Your task to perform on an android device: Go to Android settings Image 0: 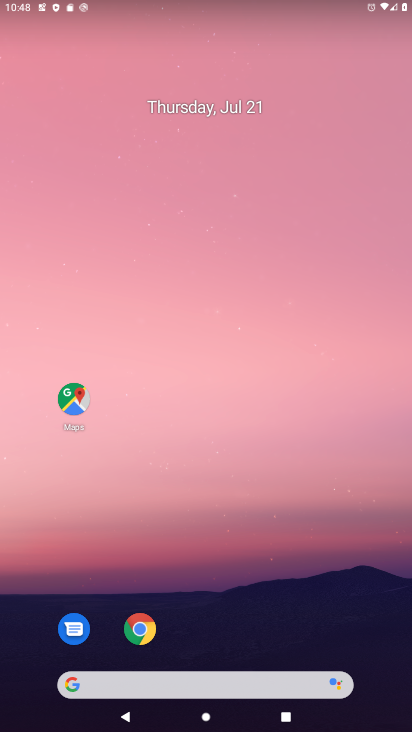
Step 0: drag from (314, 614) to (391, 54)
Your task to perform on an android device: Go to Android settings Image 1: 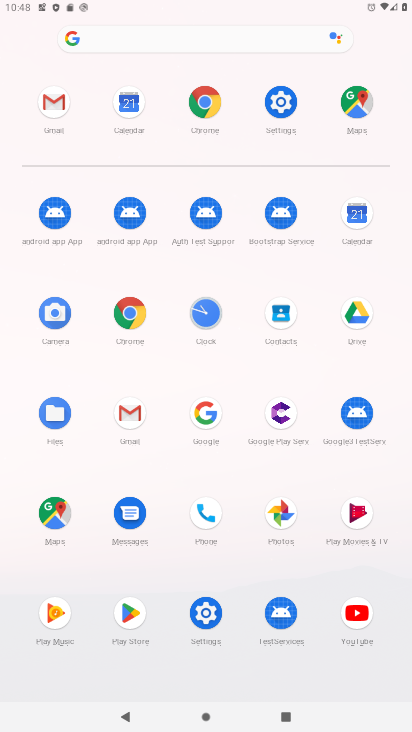
Step 1: click (202, 618)
Your task to perform on an android device: Go to Android settings Image 2: 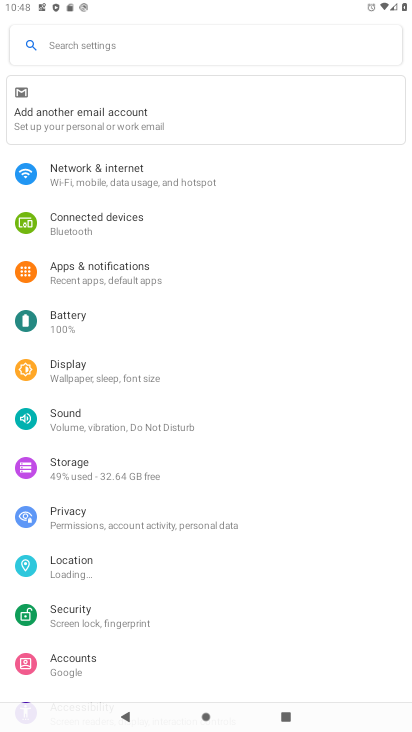
Step 2: drag from (194, 572) to (192, 303)
Your task to perform on an android device: Go to Android settings Image 3: 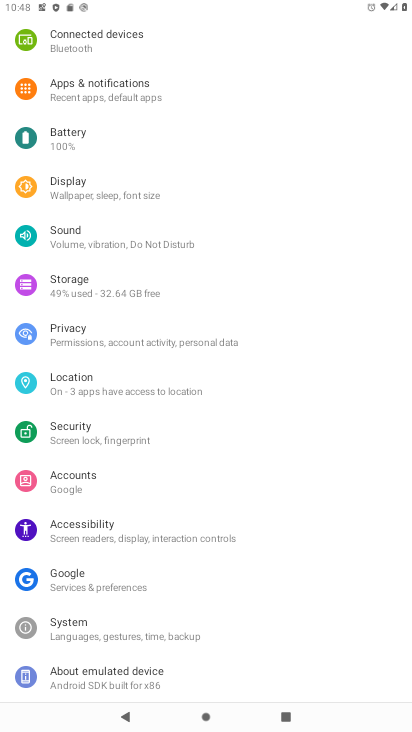
Step 3: click (135, 671)
Your task to perform on an android device: Go to Android settings Image 4: 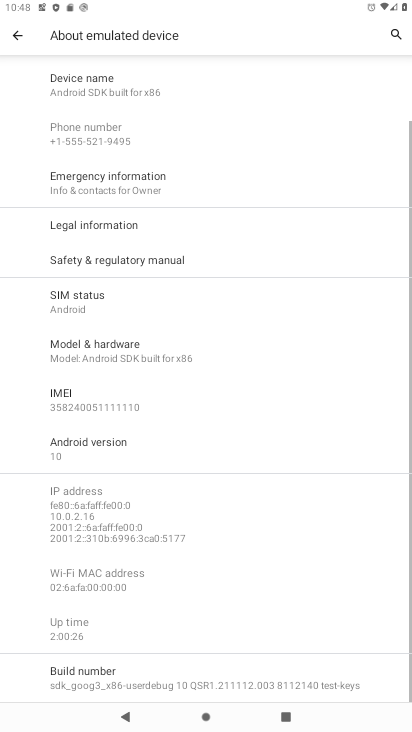
Step 4: click (88, 442)
Your task to perform on an android device: Go to Android settings Image 5: 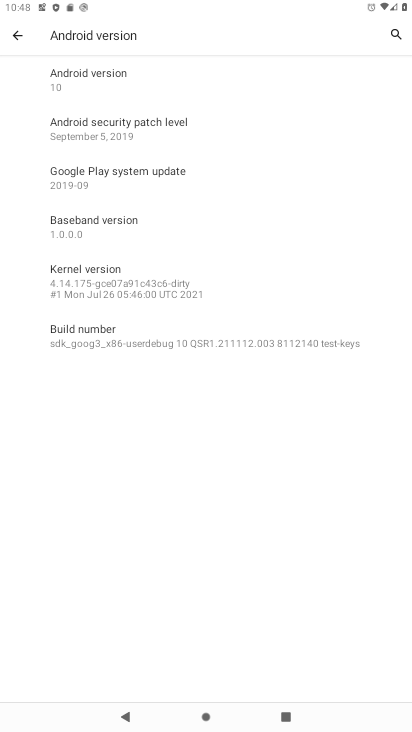
Step 5: task complete